Your task to perform on an android device: move a message to another label in the gmail app Image 0: 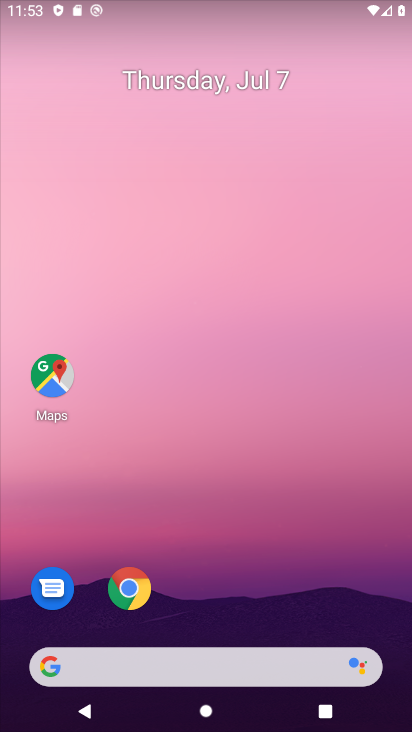
Step 0: drag from (159, 407) to (122, 19)
Your task to perform on an android device: move a message to another label in the gmail app Image 1: 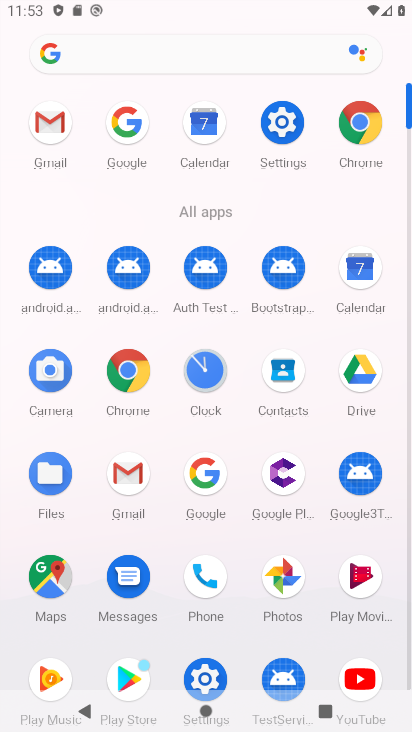
Step 1: click (56, 145)
Your task to perform on an android device: move a message to another label in the gmail app Image 2: 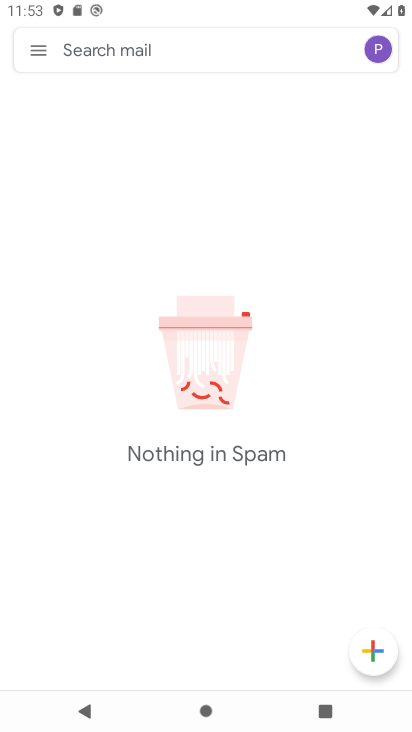
Step 2: click (38, 53)
Your task to perform on an android device: move a message to another label in the gmail app Image 3: 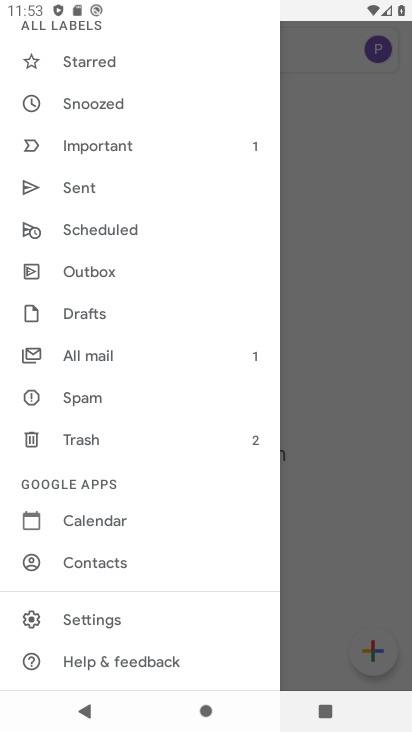
Step 3: click (141, 359)
Your task to perform on an android device: move a message to another label in the gmail app Image 4: 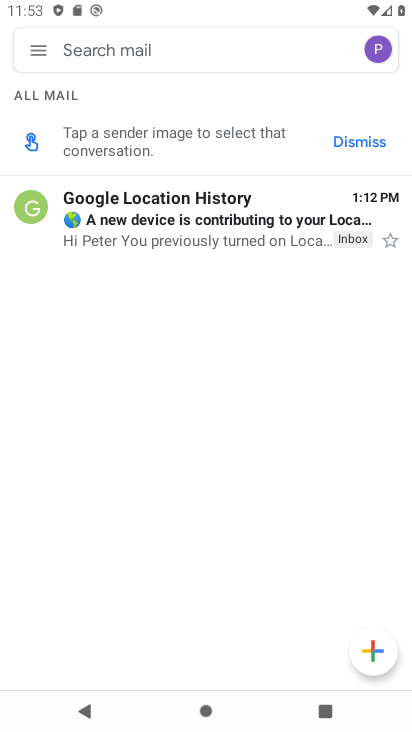
Step 4: click (204, 246)
Your task to perform on an android device: move a message to another label in the gmail app Image 5: 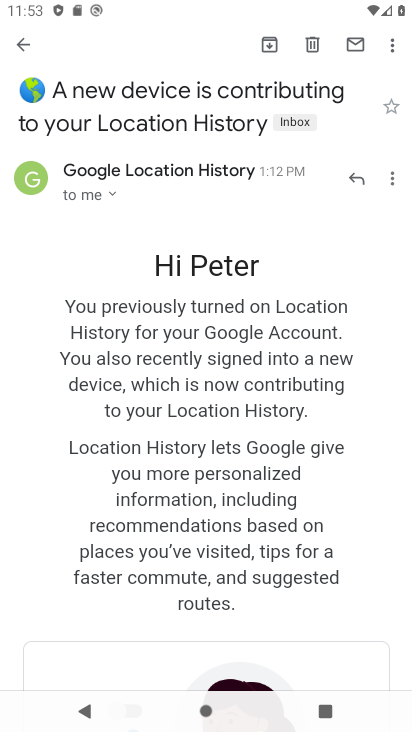
Step 5: click (390, 38)
Your task to perform on an android device: move a message to another label in the gmail app Image 6: 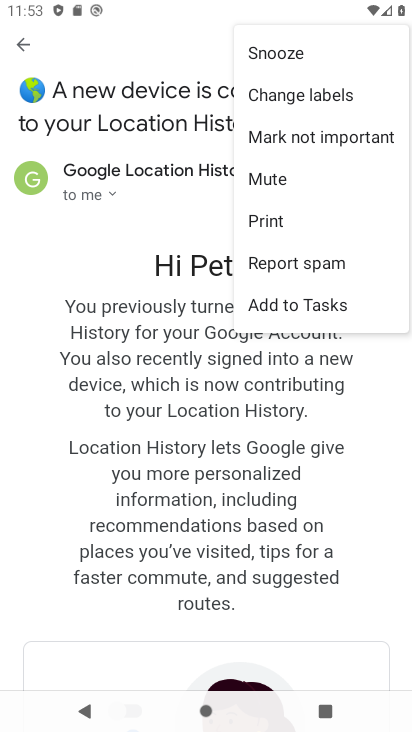
Step 6: click (313, 103)
Your task to perform on an android device: move a message to another label in the gmail app Image 7: 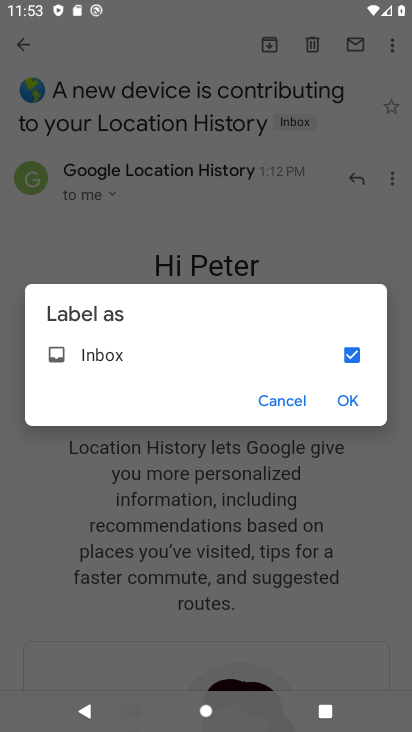
Step 7: click (350, 351)
Your task to perform on an android device: move a message to another label in the gmail app Image 8: 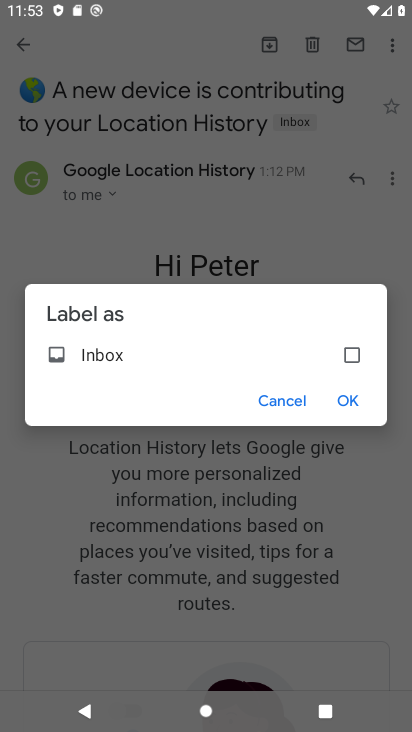
Step 8: click (350, 405)
Your task to perform on an android device: move a message to another label in the gmail app Image 9: 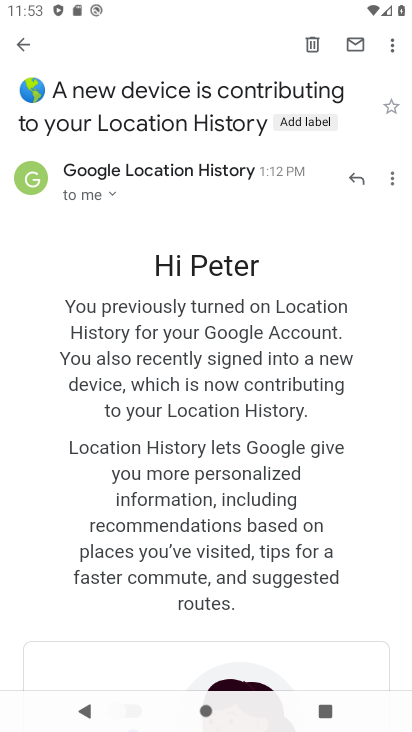
Step 9: task complete